Your task to perform on an android device: delete a single message in the gmail app Image 0: 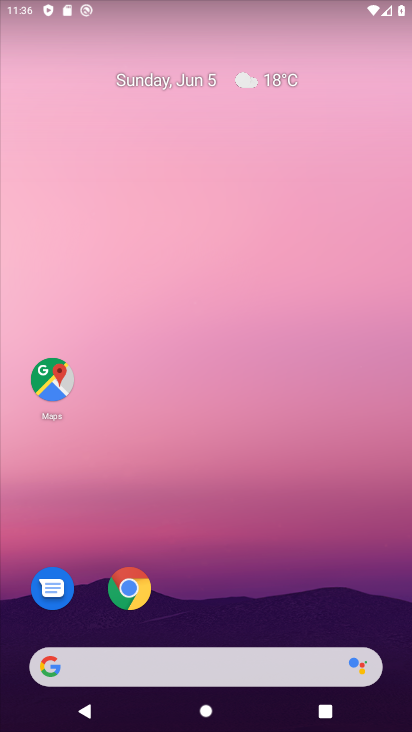
Step 0: drag from (258, 500) to (278, 61)
Your task to perform on an android device: delete a single message in the gmail app Image 1: 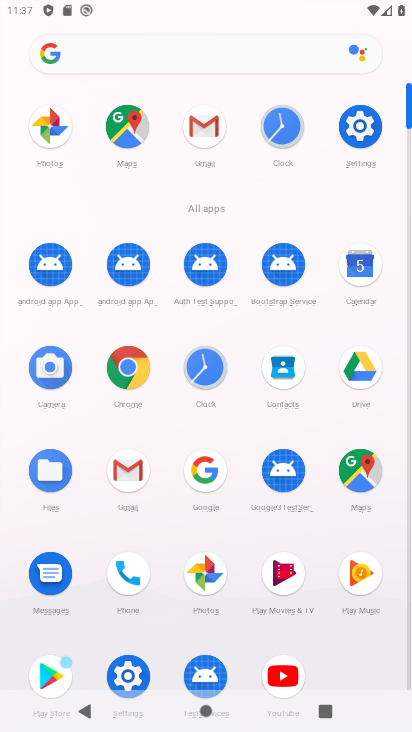
Step 1: click (205, 124)
Your task to perform on an android device: delete a single message in the gmail app Image 2: 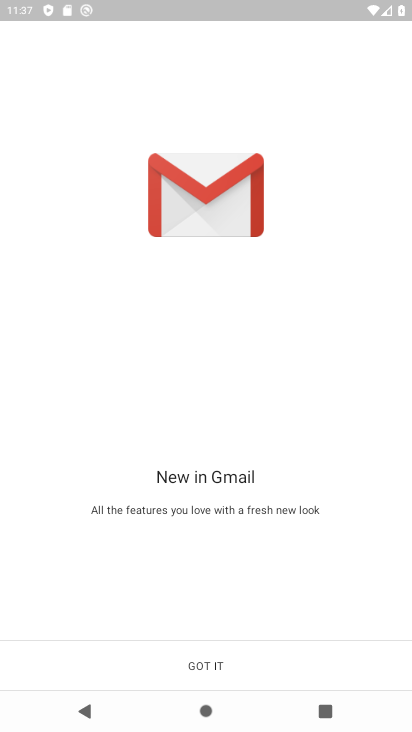
Step 2: click (196, 672)
Your task to perform on an android device: delete a single message in the gmail app Image 3: 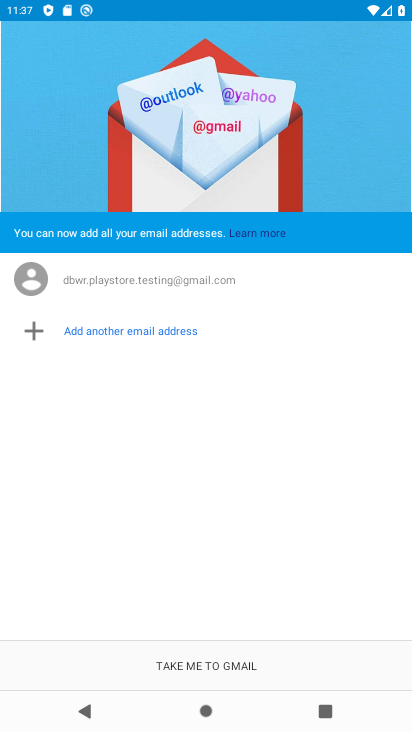
Step 3: click (197, 672)
Your task to perform on an android device: delete a single message in the gmail app Image 4: 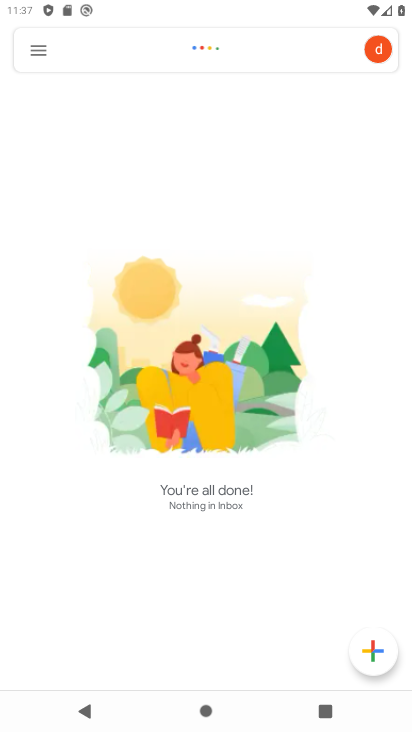
Step 4: click (51, 38)
Your task to perform on an android device: delete a single message in the gmail app Image 5: 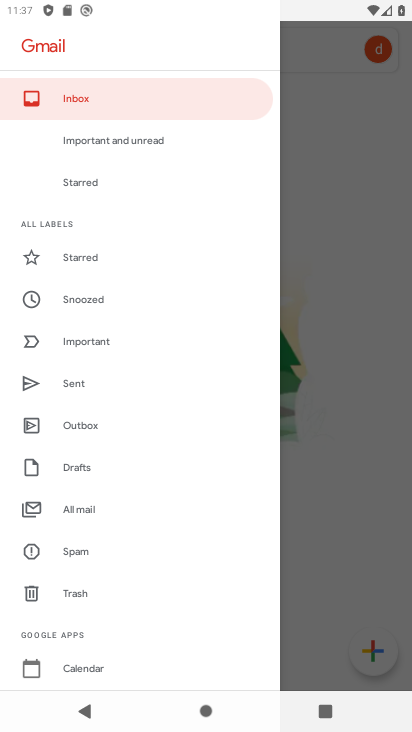
Step 5: drag from (136, 644) to (226, 189)
Your task to perform on an android device: delete a single message in the gmail app Image 6: 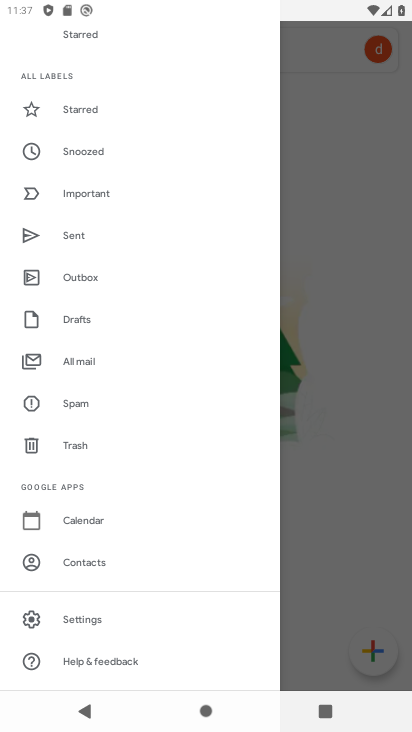
Step 6: click (87, 360)
Your task to perform on an android device: delete a single message in the gmail app Image 7: 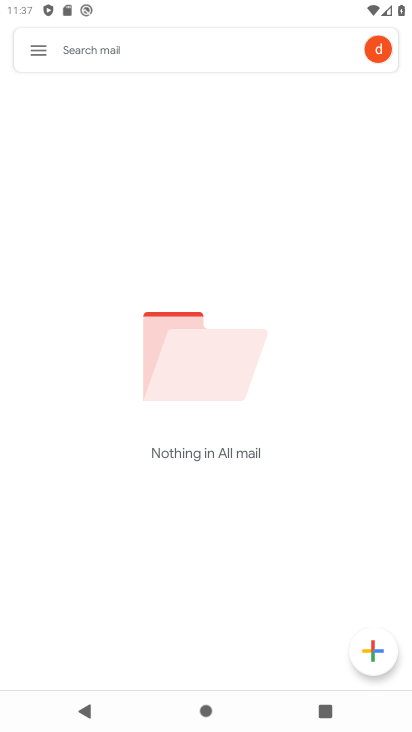
Step 7: task complete